Your task to perform on an android device: check out phone information Image 0: 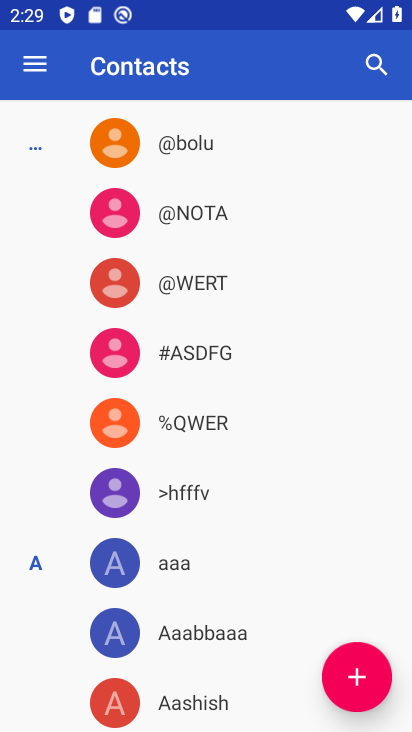
Step 0: press home button
Your task to perform on an android device: check out phone information Image 1: 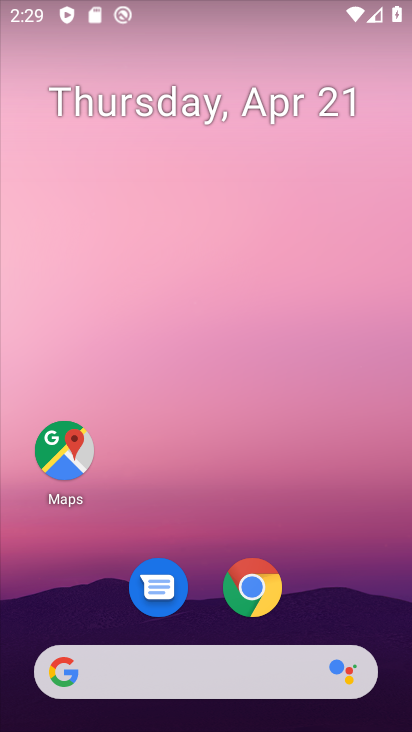
Step 1: drag from (293, 609) to (264, 40)
Your task to perform on an android device: check out phone information Image 2: 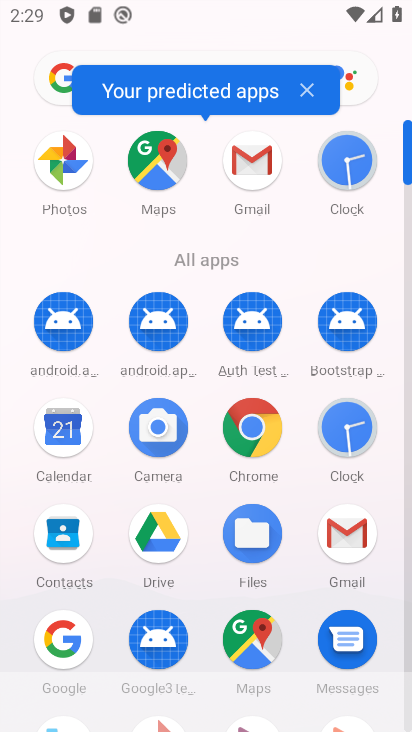
Step 2: drag from (258, 539) to (252, 155)
Your task to perform on an android device: check out phone information Image 3: 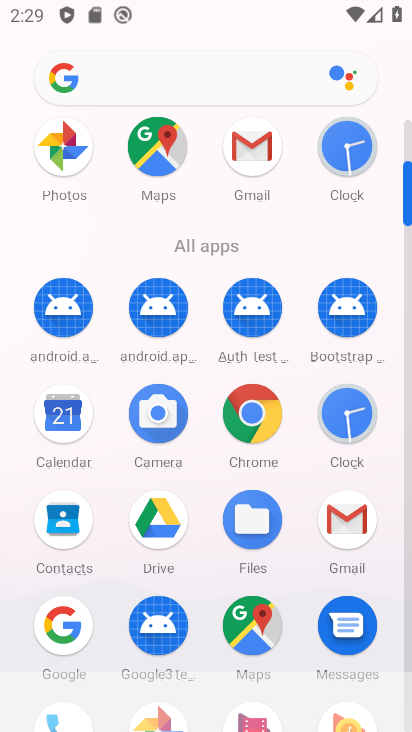
Step 3: drag from (288, 529) to (310, 333)
Your task to perform on an android device: check out phone information Image 4: 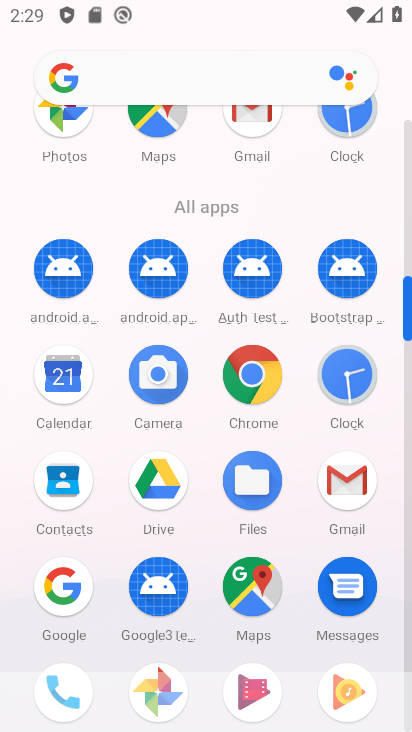
Step 4: drag from (186, 499) to (181, 256)
Your task to perform on an android device: check out phone information Image 5: 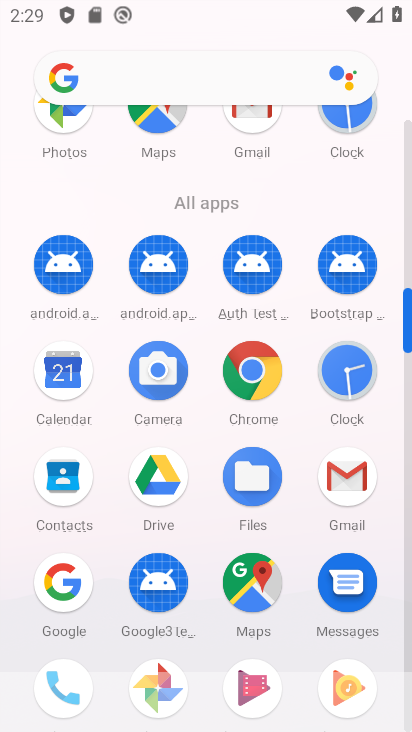
Step 5: drag from (252, 327) to (257, 286)
Your task to perform on an android device: check out phone information Image 6: 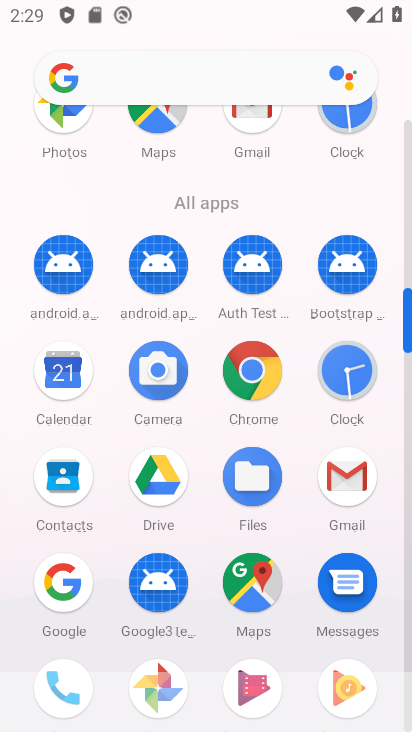
Step 6: drag from (290, 529) to (329, 133)
Your task to perform on an android device: check out phone information Image 7: 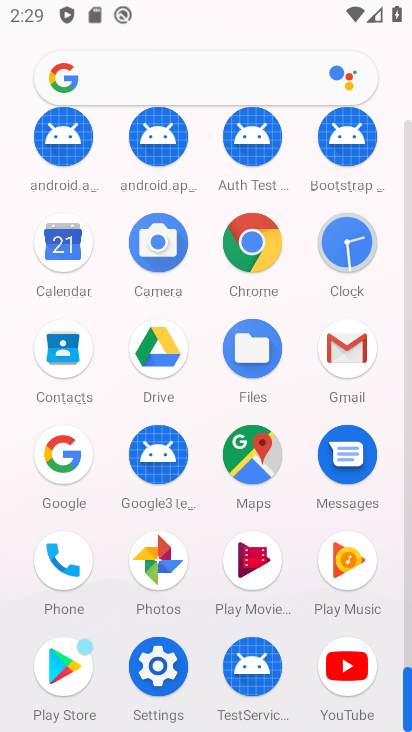
Step 7: drag from (267, 448) to (261, 267)
Your task to perform on an android device: check out phone information Image 8: 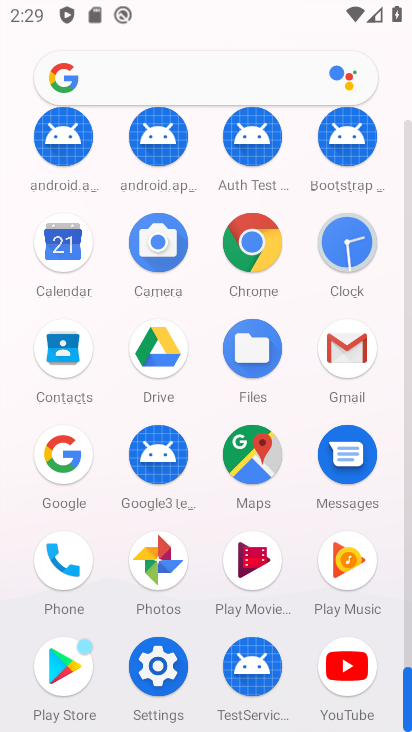
Step 8: click (156, 675)
Your task to perform on an android device: check out phone information Image 9: 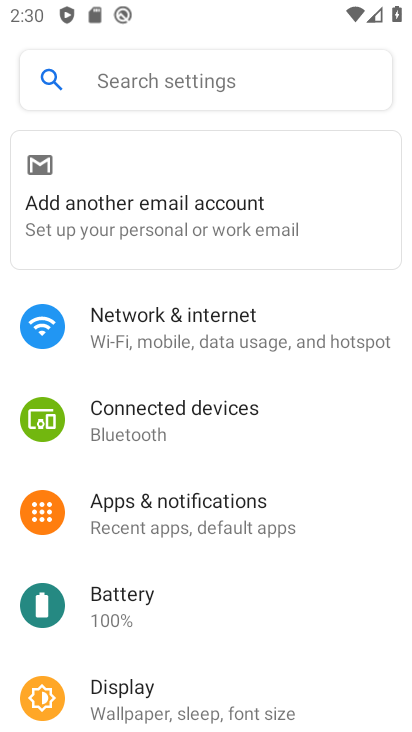
Step 9: drag from (238, 645) to (293, 287)
Your task to perform on an android device: check out phone information Image 10: 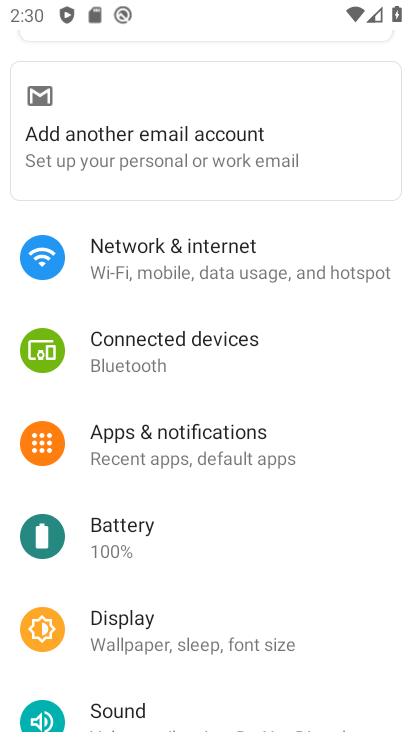
Step 10: drag from (210, 633) to (198, 168)
Your task to perform on an android device: check out phone information Image 11: 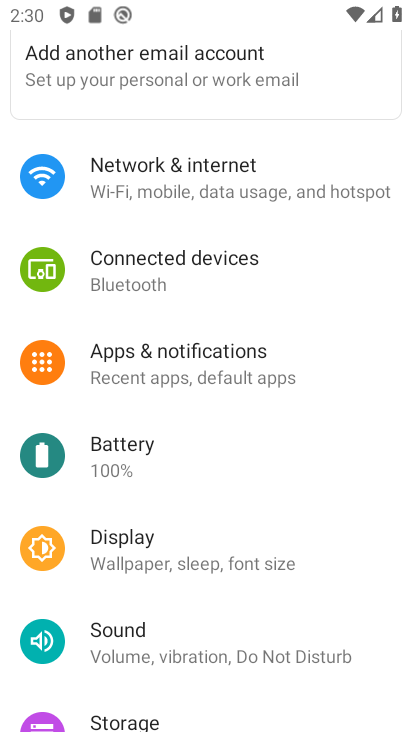
Step 11: drag from (231, 684) to (251, 191)
Your task to perform on an android device: check out phone information Image 12: 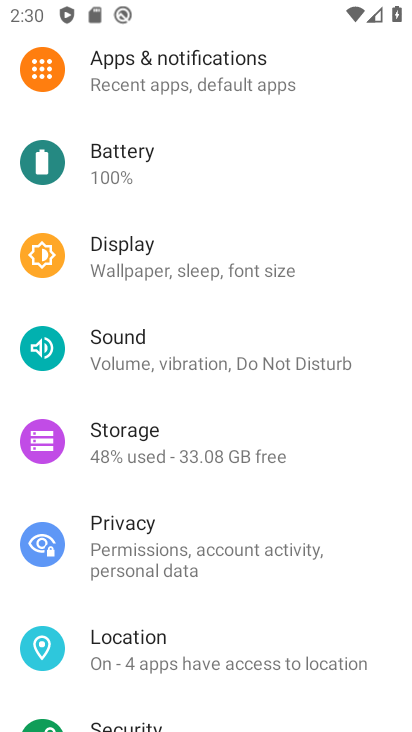
Step 12: drag from (209, 673) to (241, 201)
Your task to perform on an android device: check out phone information Image 13: 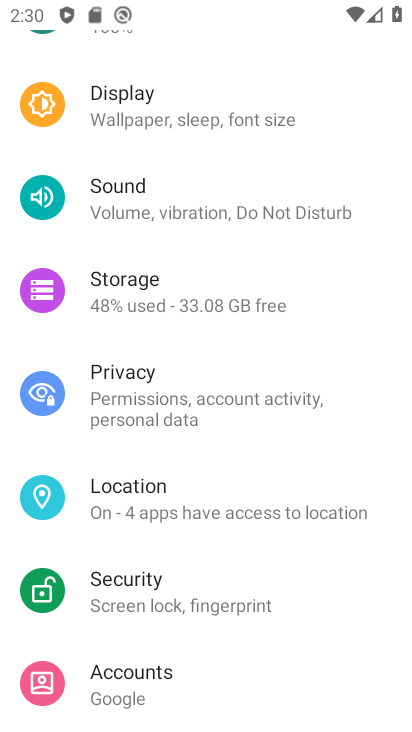
Step 13: drag from (192, 697) to (208, 321)
Your task to perform on an android device: check out phone information Image 14: 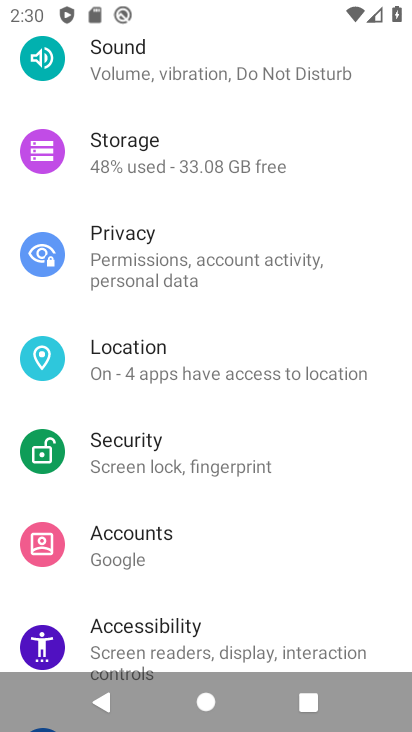
Step 14: drag from (211, 627) to (241, 377)
Your task to perform on an android device: check out phone information Image 15: 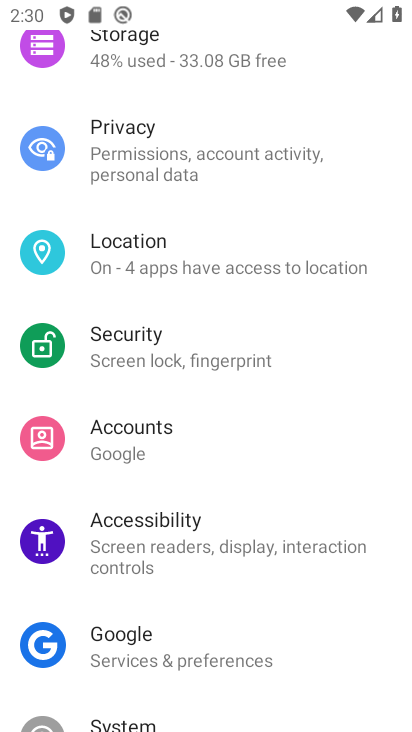
Step 15: drag from (249, 483) to (290, 150)
Your task to perform on an android device: check out phone information Image 16: 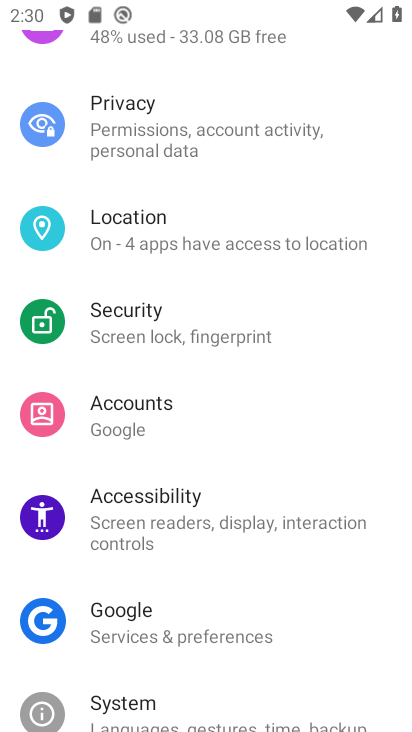
Step 16: drag from (171, 627) to (133, 20)
Your task to perform on an android device: check out phone information Image 17: 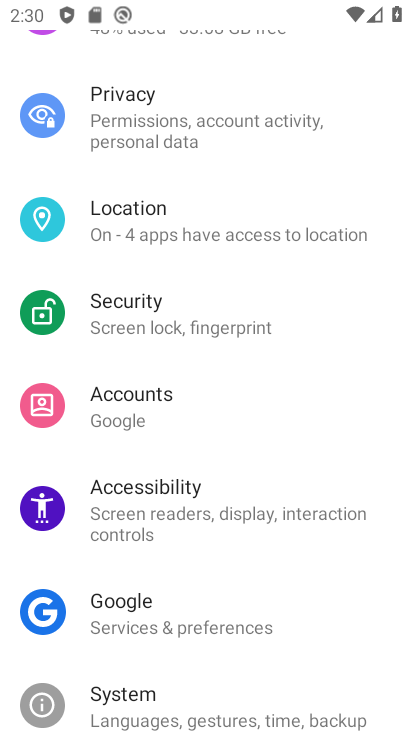
Step 17: drag from (202, 694) to (195, 124)
Your task to perform on an android device: check out phone information Image 18: 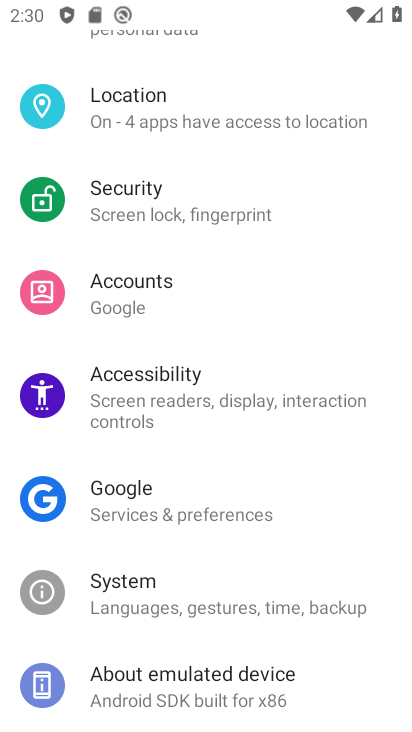
Step 18: click (180, 689)
Your task to perform on an android device: check out phone information Image 19: 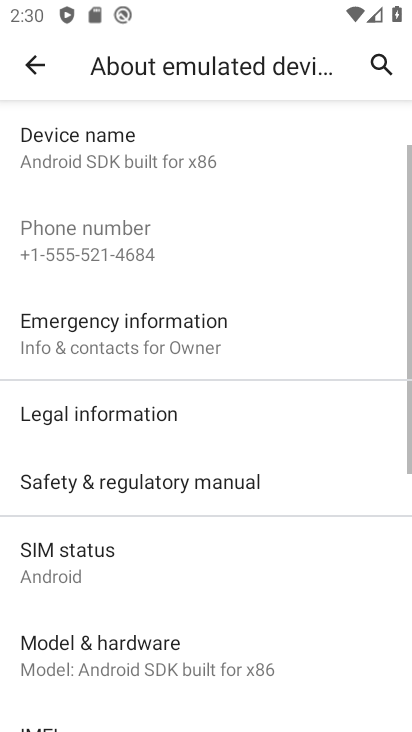
Step 19: task complete